Your task to perform on an android device: Open the map Image 0: 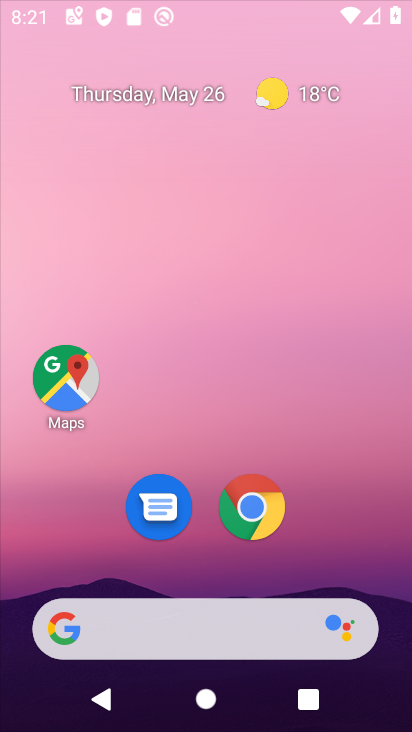
Step 0: press home button
Your task to perform on an android device: Open the map Image 1: 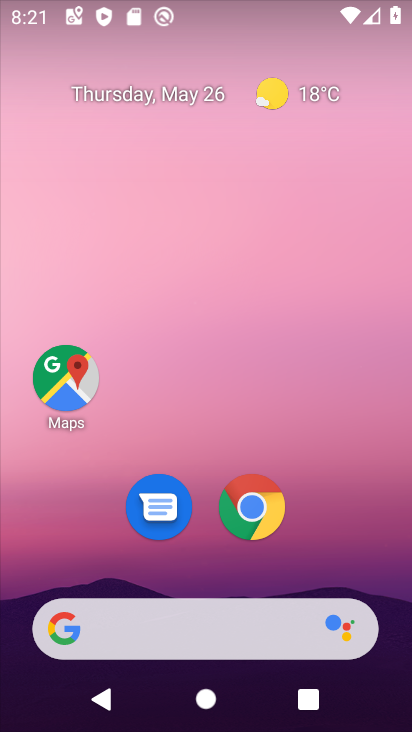
Step 1: drag from (274, 653) to (252, 116)
Your task to perform on an android device: Open the map Image 2: 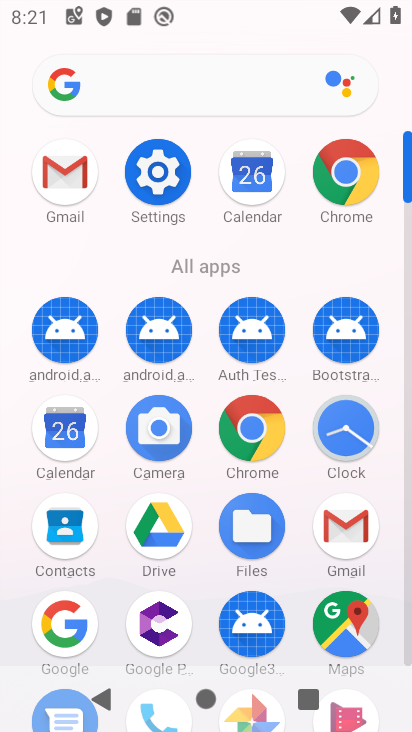
Step 2: click (335, 613)
Your task to perform on an android device: Open the map Image 3: 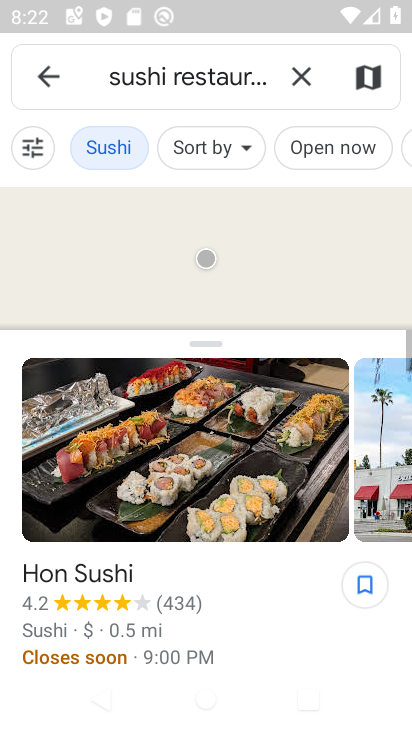
Step 3: click (43, 81)
Your task to perform on an android device: Open the map Image 4: 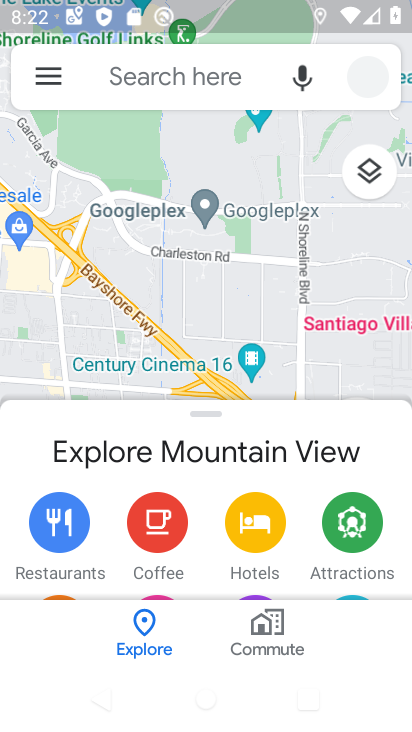
Step 4: task complete